Your task to perform on an android device: Open Google Maps and go to "Timeline" Image 0: 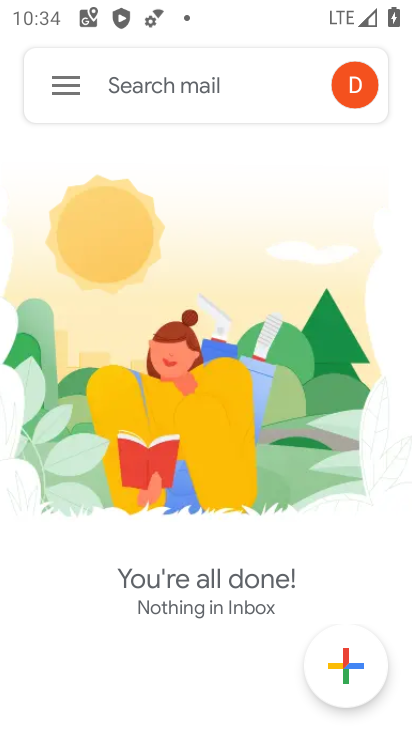
Step 0: press home button
Your task to perform on an android device: Open Google Maps and go to "Timeline" Image 1: 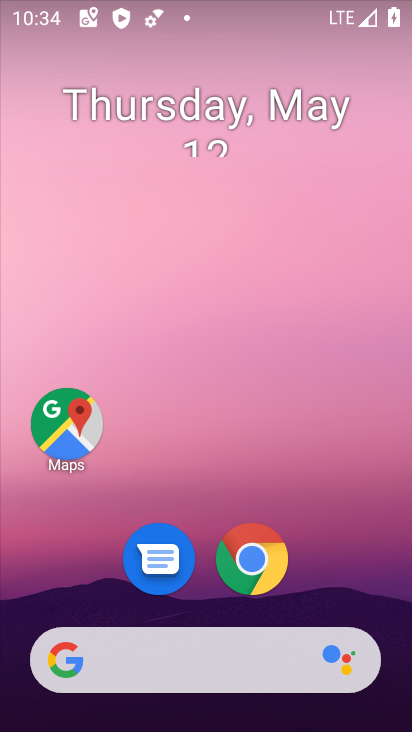
Step 1: click (84, 412)
Your task to perform on an android device: Open Google Maps and go to "Timeline" Image 2: 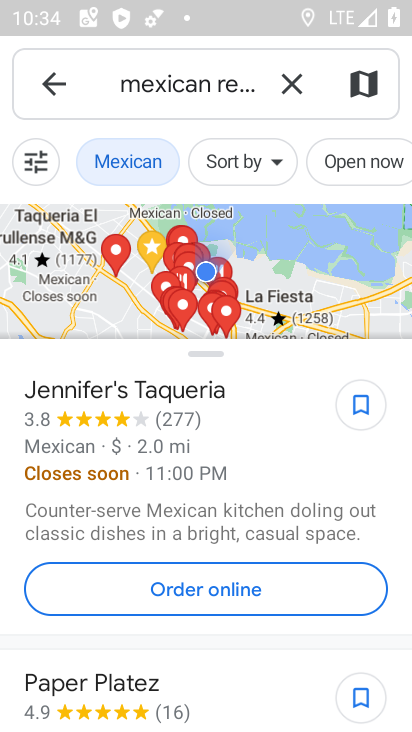
Step 2: click (293, 78)
Your task to perform on an android device: Open Google Maps and go to "Timeline" Image 3: 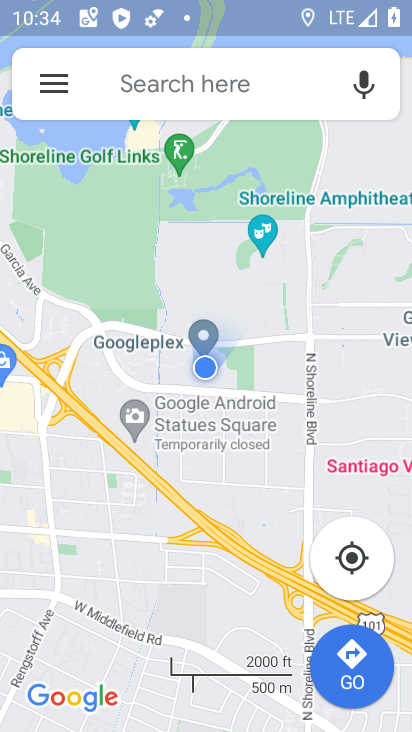
Step 3: click (70, 85)
Your task to perform on an android device: Open Google Maps and go to "Timeline" Image 4: 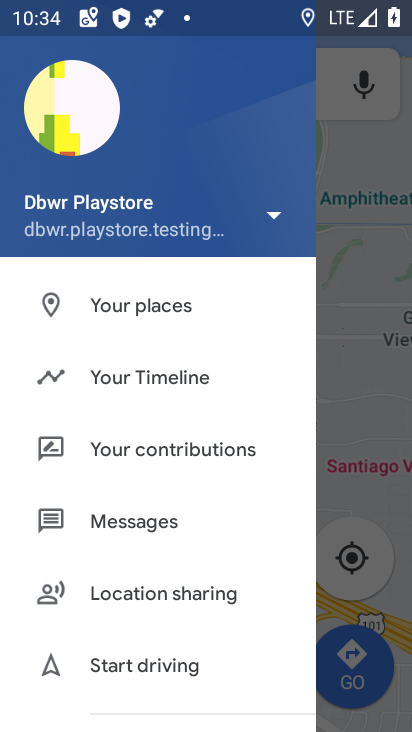
Step 4: click (161, 362)
Your task to perform on an android device: Open Google Maps and go to "Timeline" Image 5: 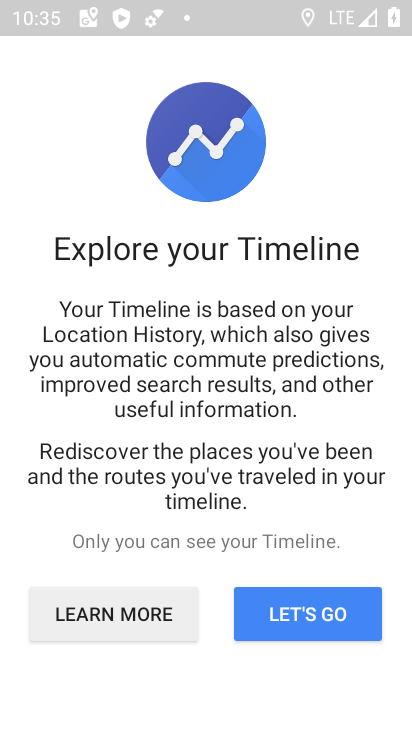
Step 5: click (305, 622)
Your task to perform on an android device: Open Google Maps and go to "Timeline" Image 6: 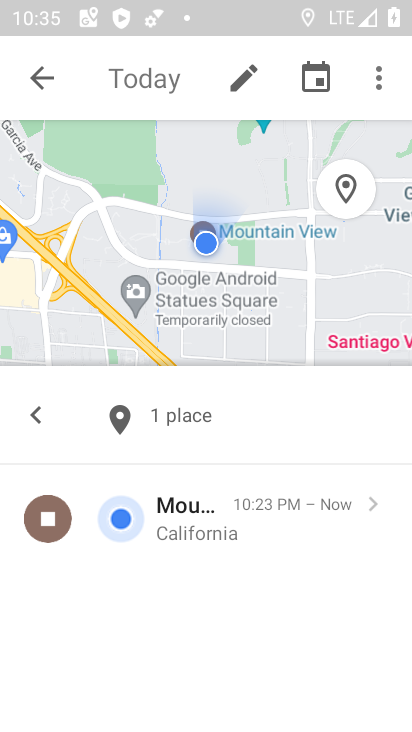
Step 6: task complete